Your task to perform on an android device: open device folders in google photos Image 0: 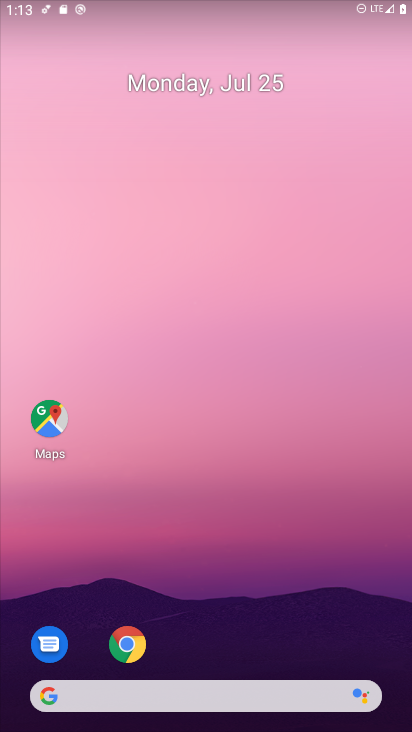
Step 0: drag from (203, 728) to (208, 61)
Your task to perform on an android device: open device folders in google photos Image 1: 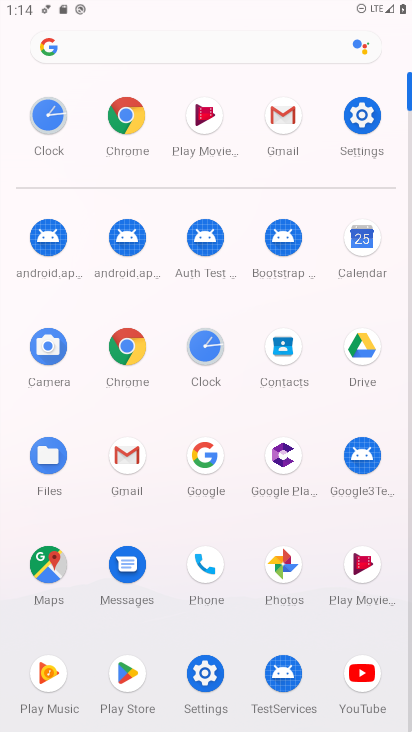
Step 1: click (286, 561)
Your task to perform on an android device: open device folders in google photos Image 2: 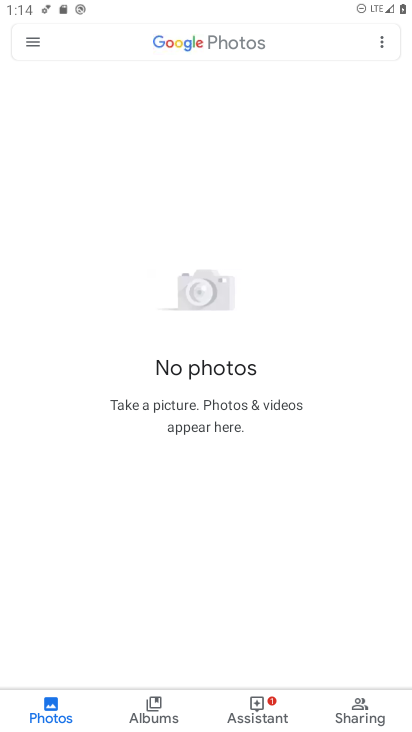
Step 2: click (31, 41)
Your task to perform on an android device: open device folders in google photos Image 3: 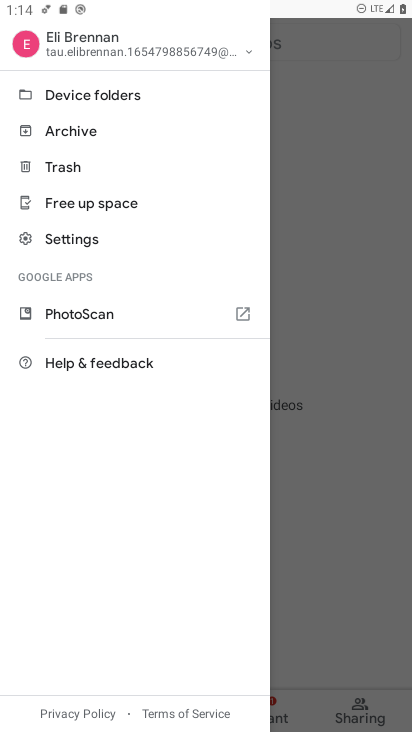
Step 3: click (72, 92)
Your task to perform on an android device: open device folders in google photos Image 4: 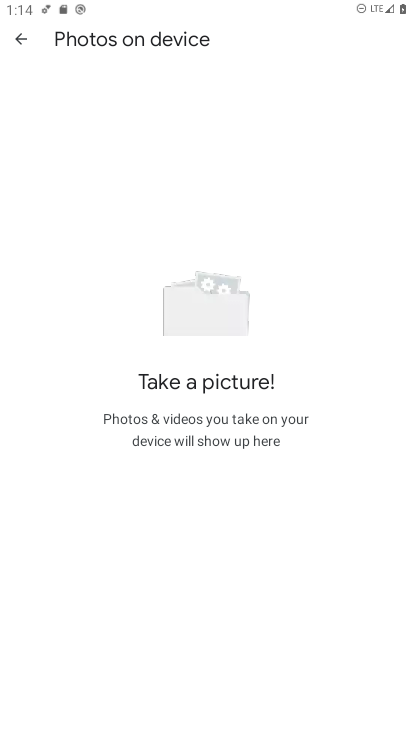
Step 4: task complete